Your task to perform on an android device: Find coffee shops on Maps Image 0: 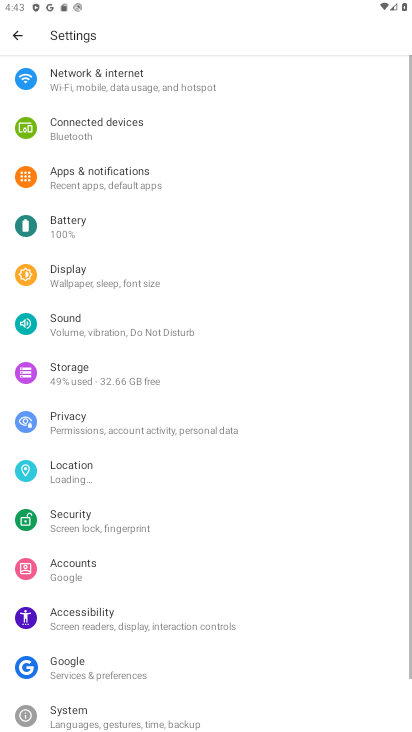
Step 0: press home button
Your task to perform on an android device: Find coffee shops on Maps Image 1: 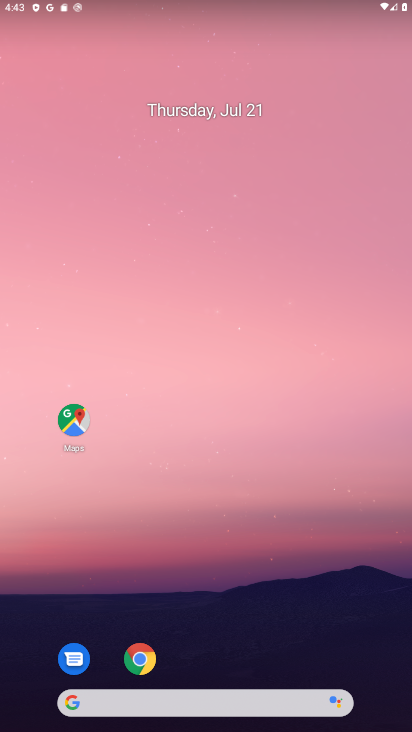
Step 1: click (77, 425)
Your task to perform on an android device: Find coffee shops on Maps Image 2: 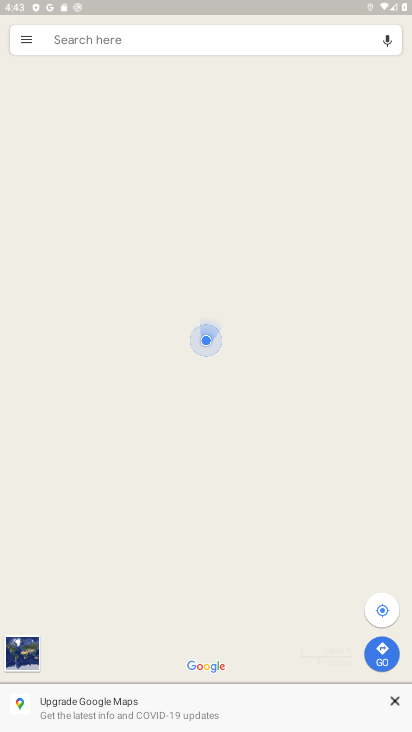
Step 2: click (89, 34)
Your task to perform on an android device: Find coffee shops on Maps Image 3: 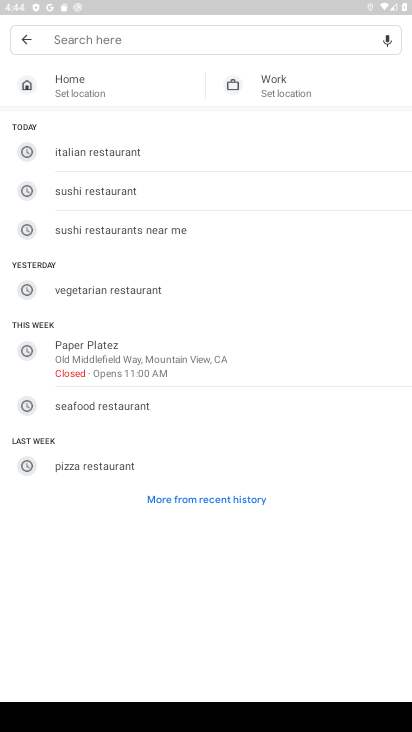
Step 3: type "coffee shops"
Your task to perform on an android device: Find coffee shops on Maps Image 4: 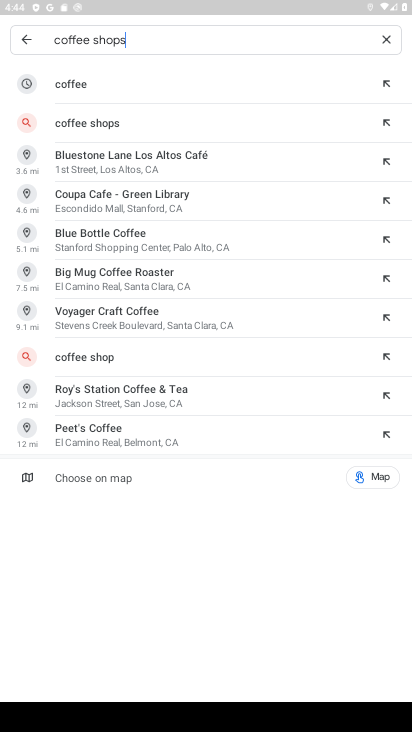
Step 4: click (96, 120)
Your task to perform on an android device: Find coffee shops on Maps Image 5: 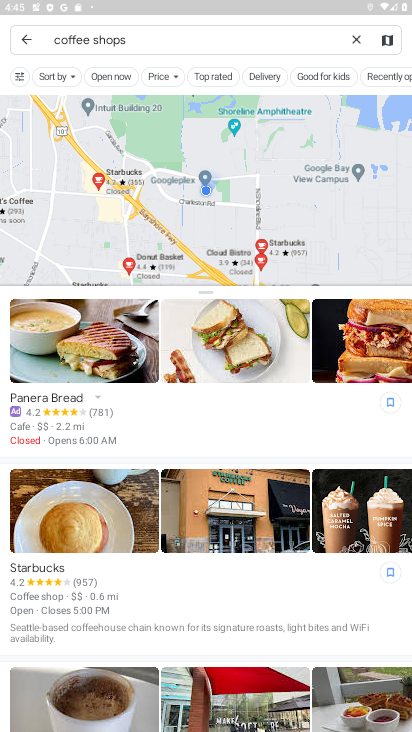
Step 5: task complete